Your task to perform on an android device: Go to CNN.com Image 0: 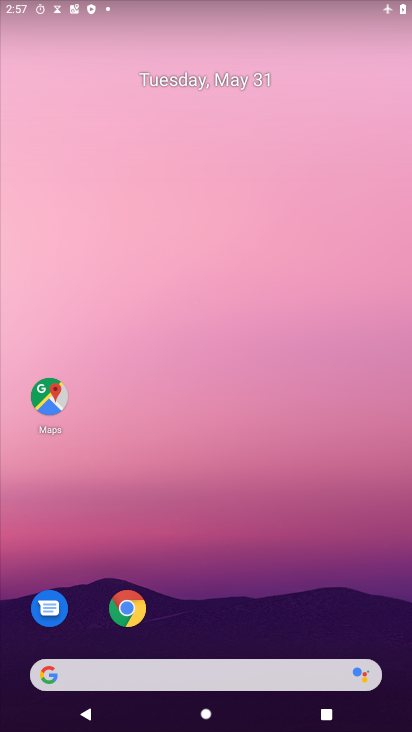
Step 0: click (142, 611)
Your task to perform on an android device: Go to CNN.com Image 1: 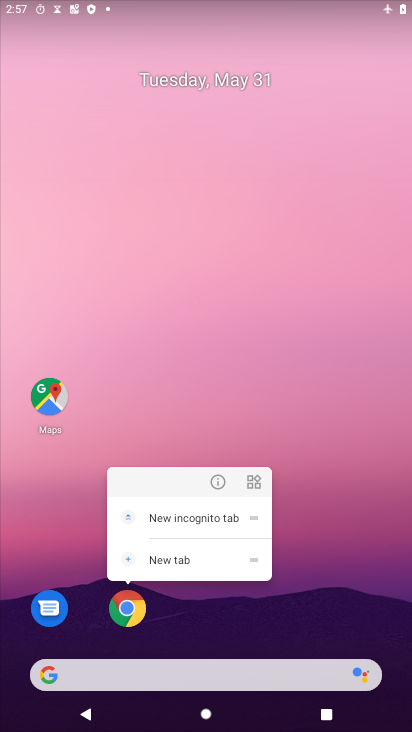
Step 1: click (141, 611)
Your task to perform on an android device: Go to CNN.com Image 2: 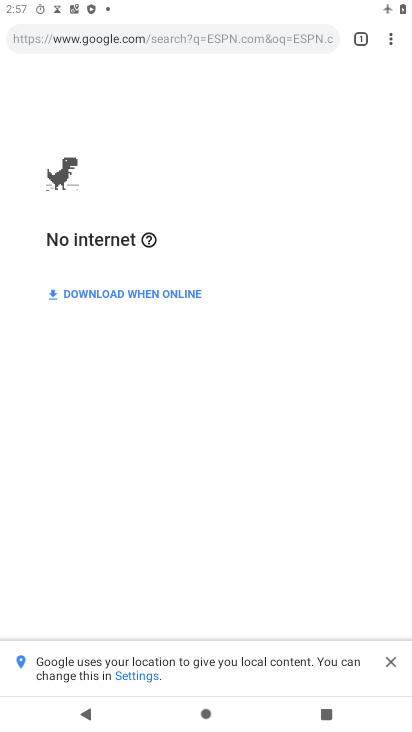
Step 2: click (191, 37)
Your task to perform on an android device: Go to CNN.com Image 3: 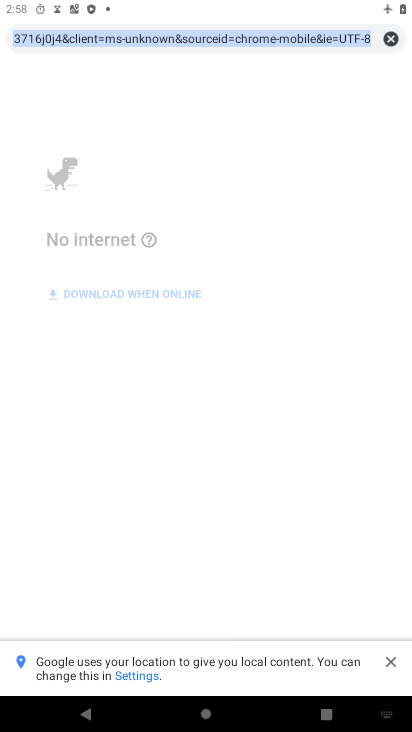
Step 3: type "CNN.com"
Your task to perform on an android device: Go to CNN.com Image 4: 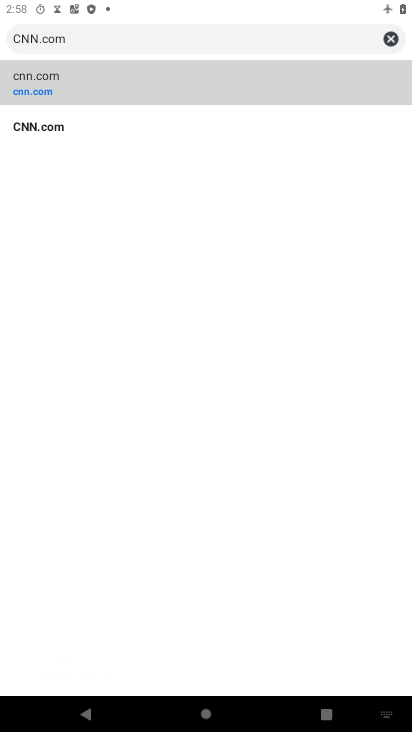
Step 4: click (92, 93)
Your task to perform on an android device: Go to CNN.com Image 5: 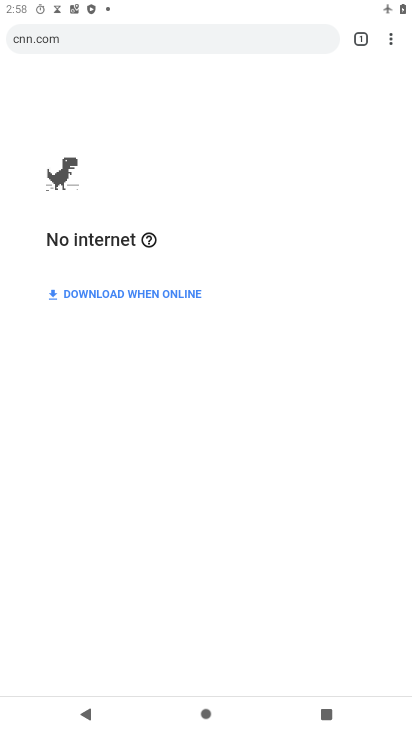
Step 5: task complete